Your task to perform on an android device: set default search engine in the chrome app Image 0: 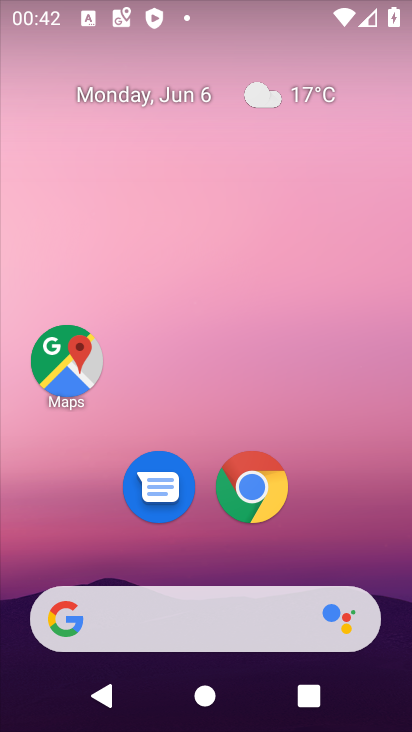
Step 0: click (256, 486)
Your task to perform on an android device: set default search engine in the chrome app Image 1: 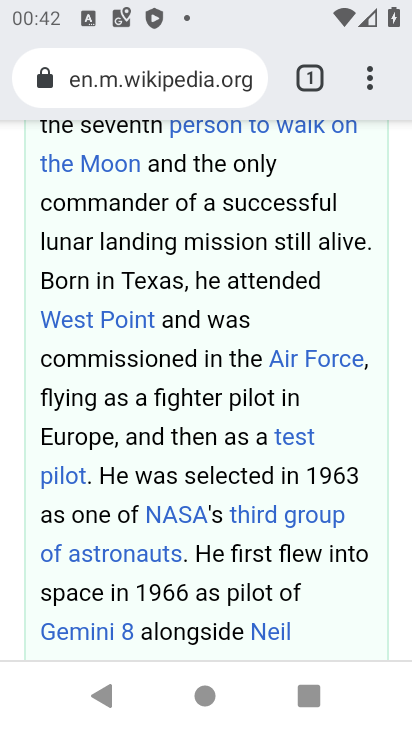
Step 1: click (369, 82)
Your task to perform on an android device: set default search engine in the chrome app Image 2: 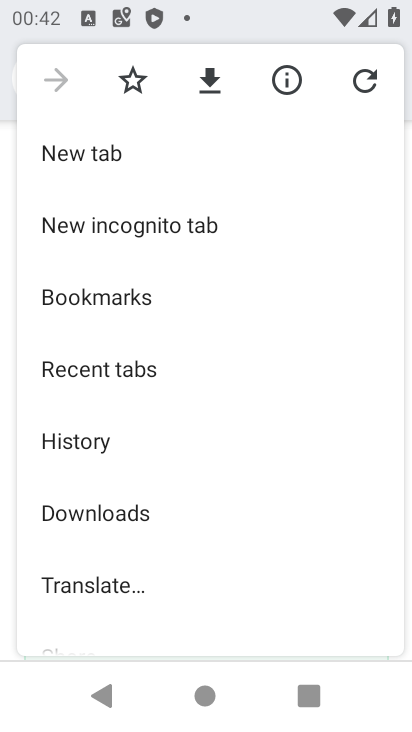
Step 2: drag from (180, 598) to (204, 184)
Your task to perform on an android device: set default search engine in the chrome app Image 3: 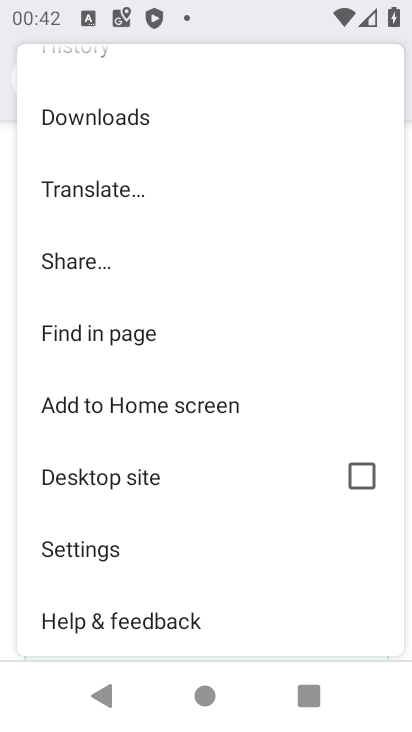
Step 3: click (100, 549)
Your task to perform on an android device: set default search engine in the chrome app Image 4: 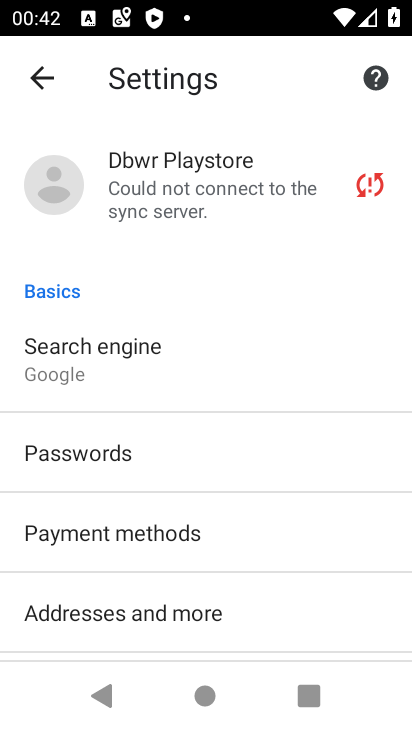
Step 4: click (81, 351)
Your task to perform on an android device: set default search engine in the chrome app Image 5: 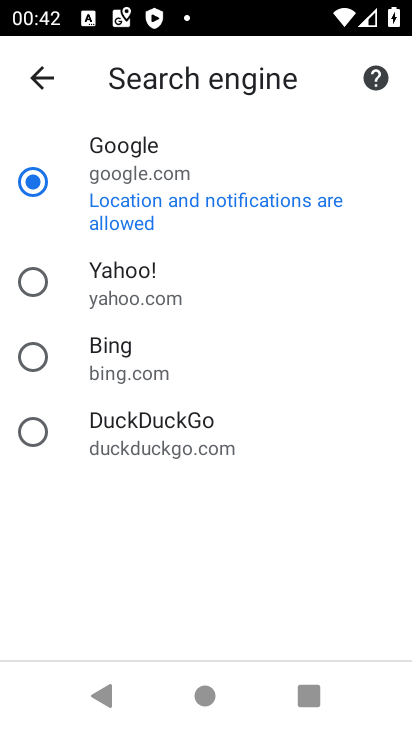
Step 5: click (36, 289)
Your task to perform on an android device: set default search engine in the chrome app Image 6: 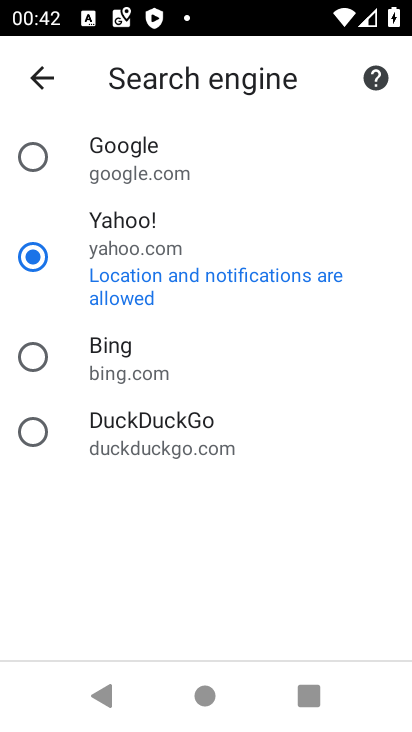
Step 6: task complete